Your task to perform on an android device: turn off notifications settings in the gmail app Image 0: 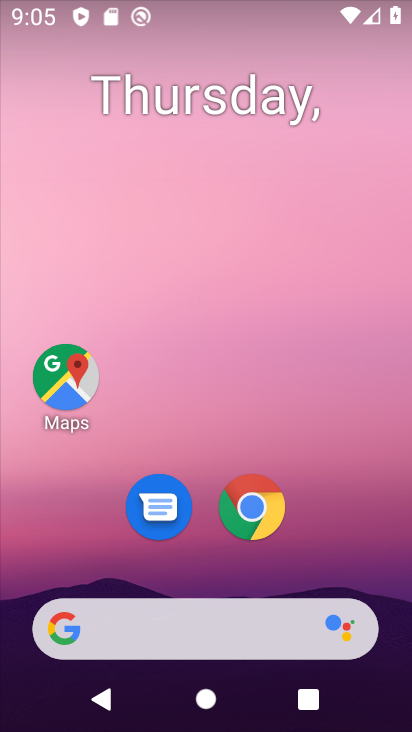
Step 0: drag from (215, 581) to (257, 1)
Your task to perform on an android device: turn off notifications settings in the gmail app Image 1: 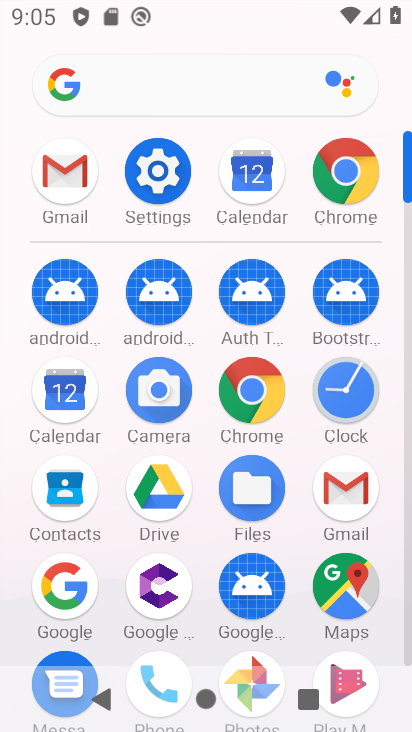
Step 1: click (344, 511)
Your task to perform on an android device: turn off notifications settings in the gmail app Image 2: 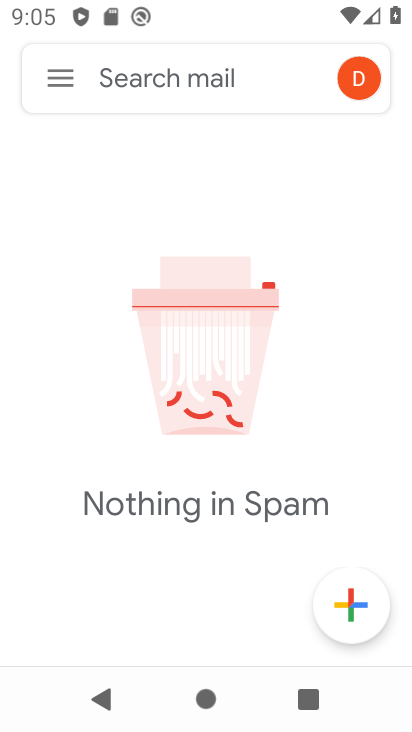
Step 2: click (49, 82)
Your task to perform on an android device: turn off notifications settings in the gmail app Image 3: 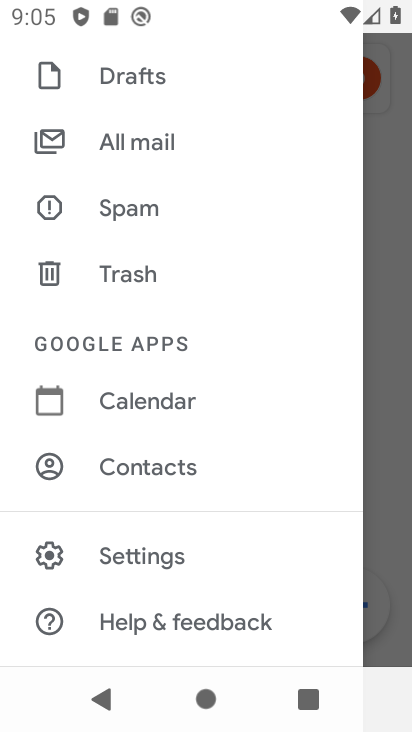
Step 3: click (137, 571)
Your task to perform on an android device: turn off notifications settings in the gmail app Image 4: 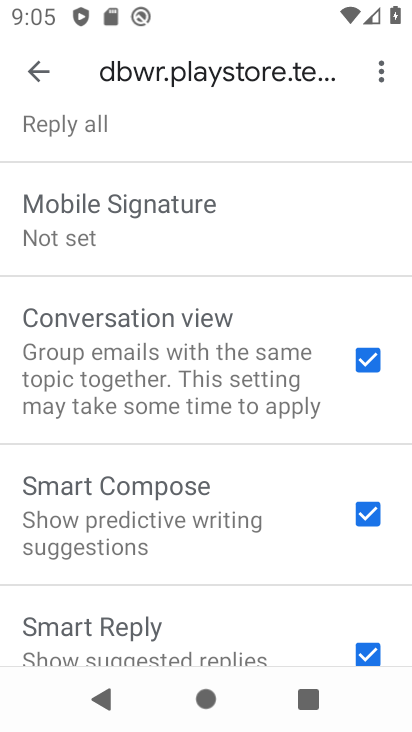
Step 4: click (26, 66)
Your task to perform on an android device: turn off notifications settings in the gmail app Image 5: 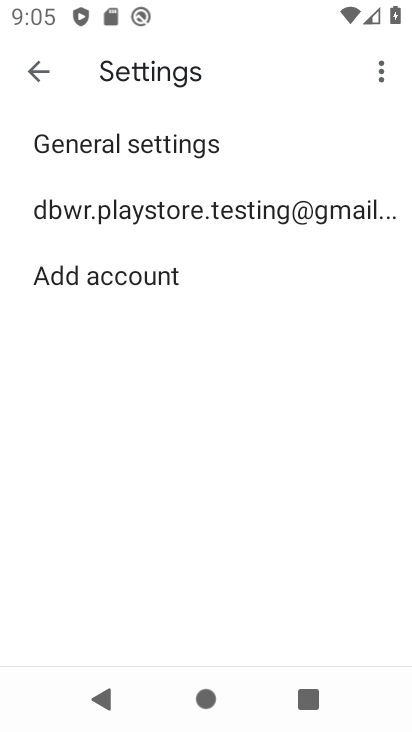
Step 5: click (181, 139)
Your task to perform on an android device: turn off notifications settings in the gmail app Image 6: 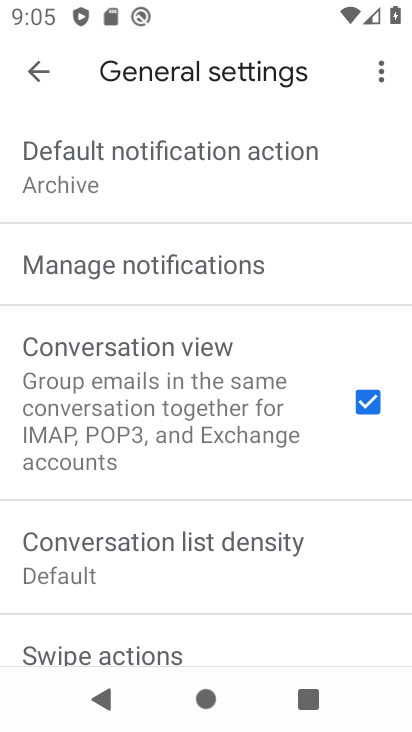
Step 6: click (100, 278)
Your task to perform on an android device: turn off notifications settings in the gmail app Image 7: 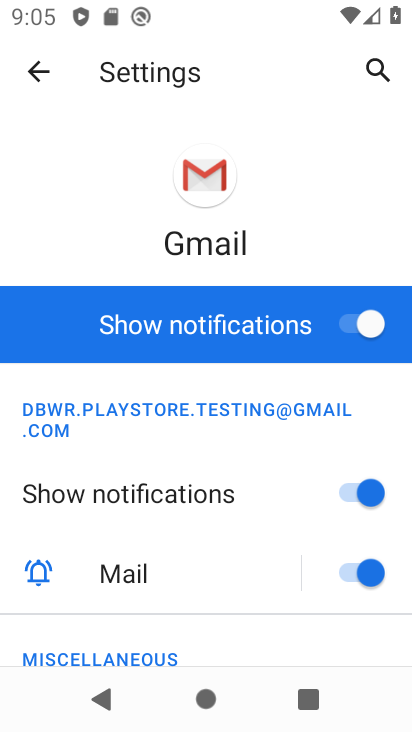
Step 7: click (354, 324)
Your task to perform on an android device: turn off notifications settings in the gmail app Image 8: 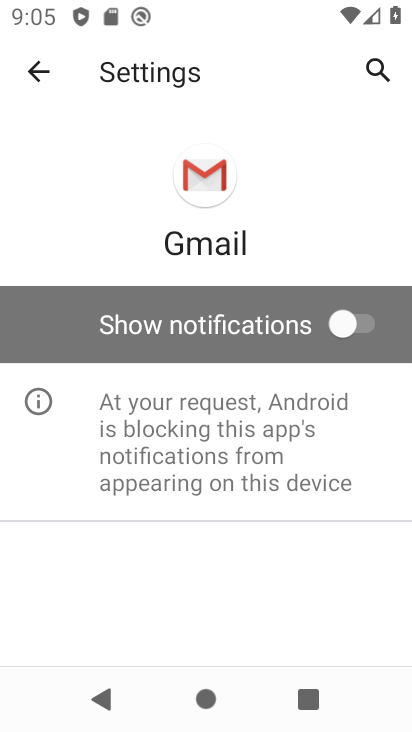
Step 8: task complete